Your task to perform on an android device: turn on bluetooth scan Image 0: 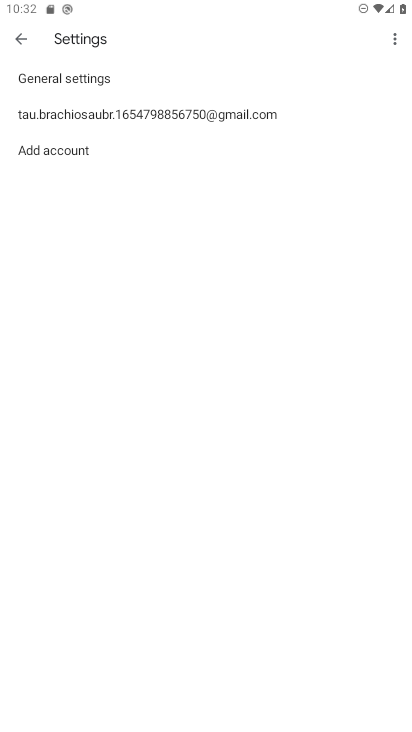
Step 0: press home button
Your task to perform on an android device: turn on bluetooth scan Image 1: 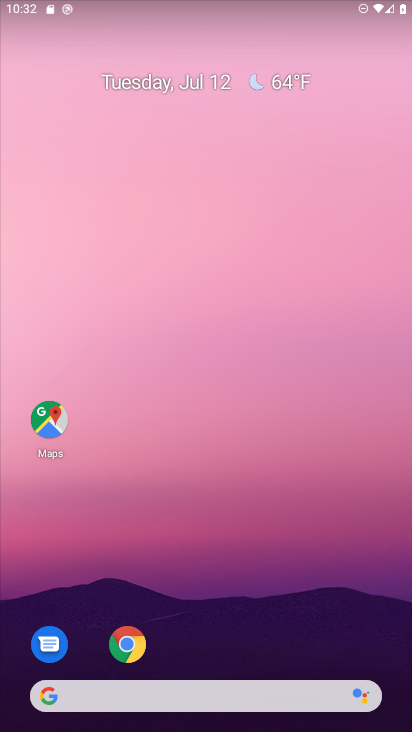
Step 1: drag from (240, 661) to (286, 128)
Your task to perform on an android device: turn on bluetooth scan Image 2: 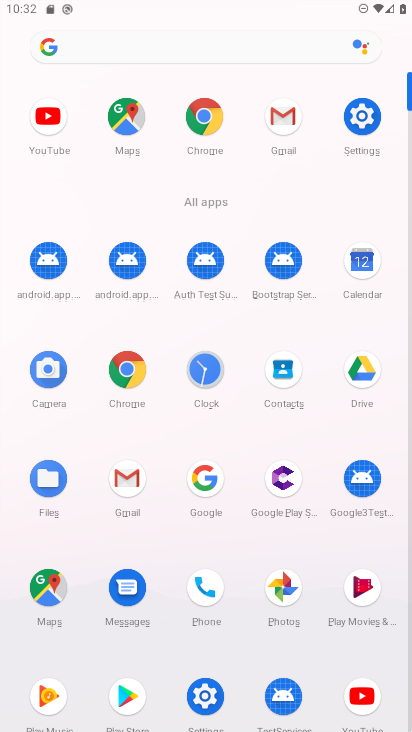
Step 2: click (349, 134)
Your task to perform on an android device: turn on bluetooth scan Image 3: 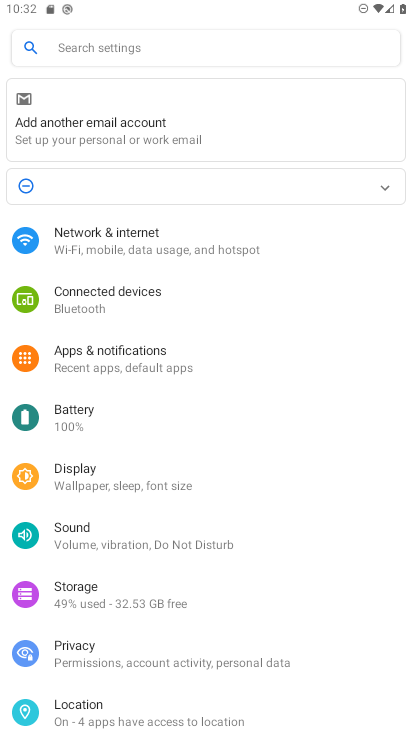
Step 3: drag from (149, 579) to (177, 274)
Your task to perform on an android device: turn on bluetooth scan Image 4: 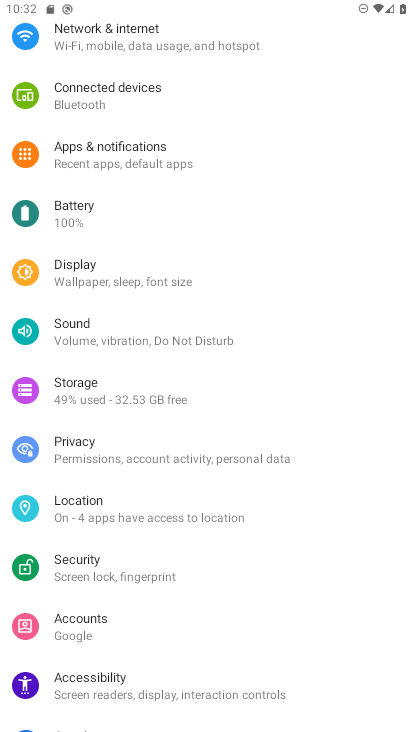
Step 4: click (139, 509)
Your task to perform on an android device: turn on bluetooth scan Image 5: 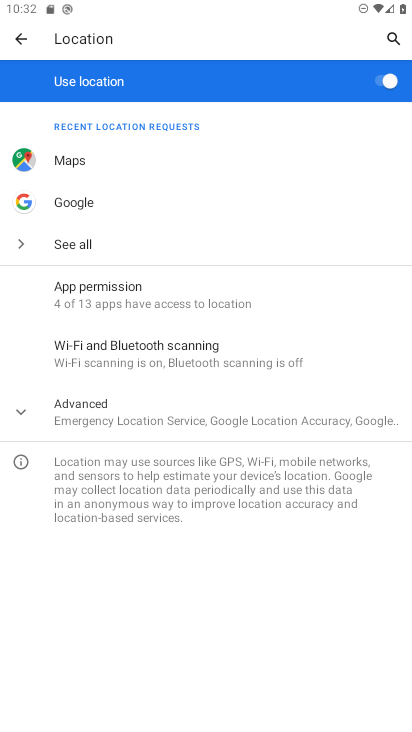
Step 5: click (230, 352)
Your task to perform on an android device: turn on bluetooth scan Image 6: 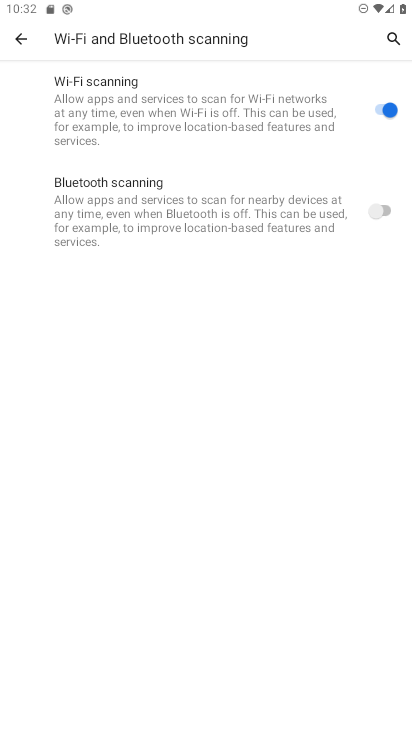
Step 6: click (363, 227)
Your task to perform on an android device: turn on bluetooth scan Image 7: 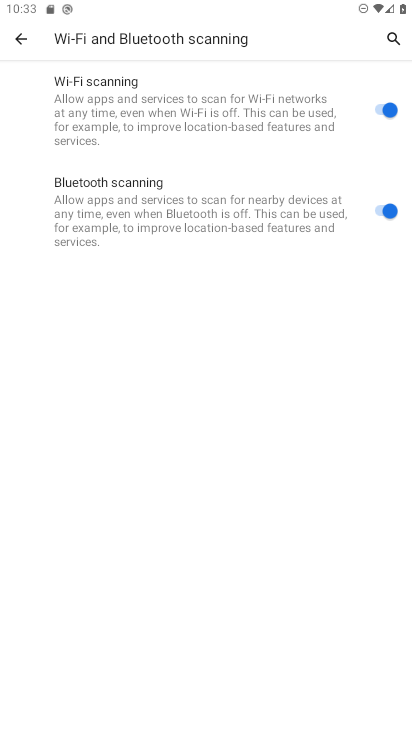
Step 7: task complete